Your task to perform on an android device: What's on my calendar tomorrow? Image 0: 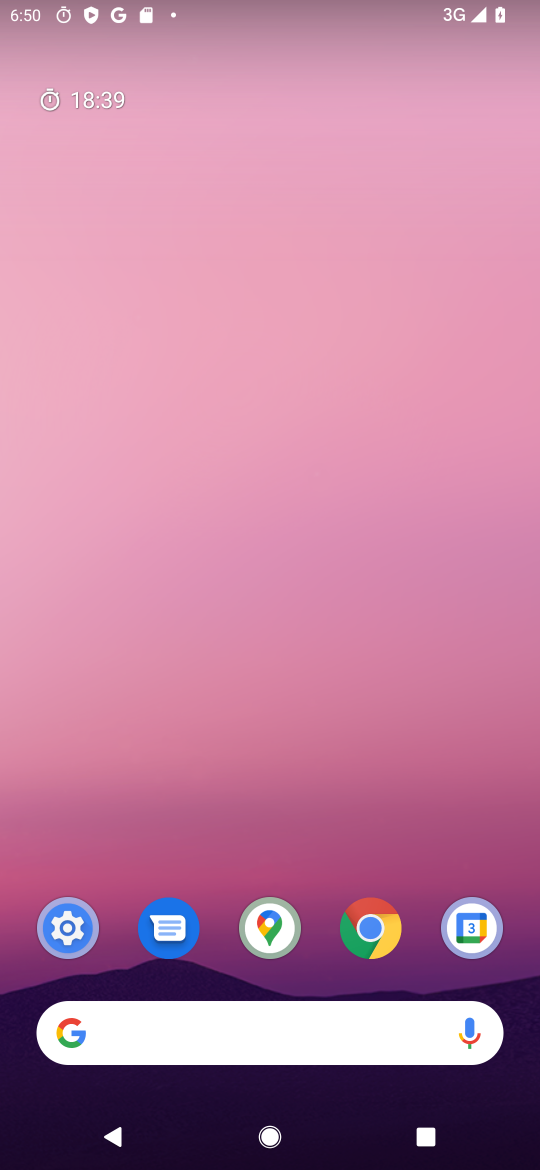
Step 0: press home button
Your task to perform on an android device: What's on my calendar tomorrow? Image 1: 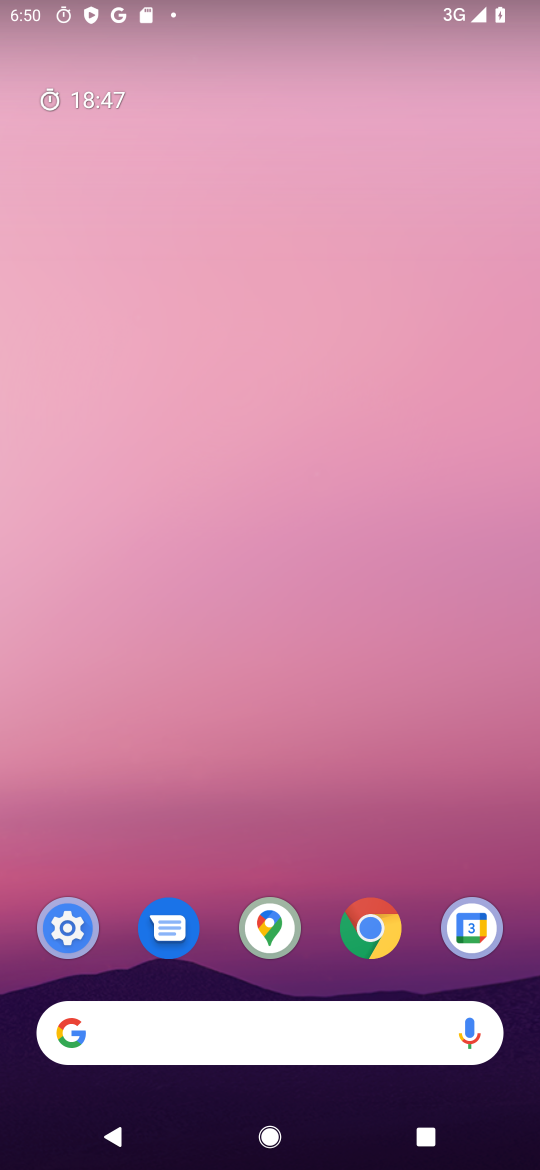
Step 1: drag from (318, 832) to (358, 162)
Your task to perform on an android device: What's on my calendar tomorrow? Image 2: 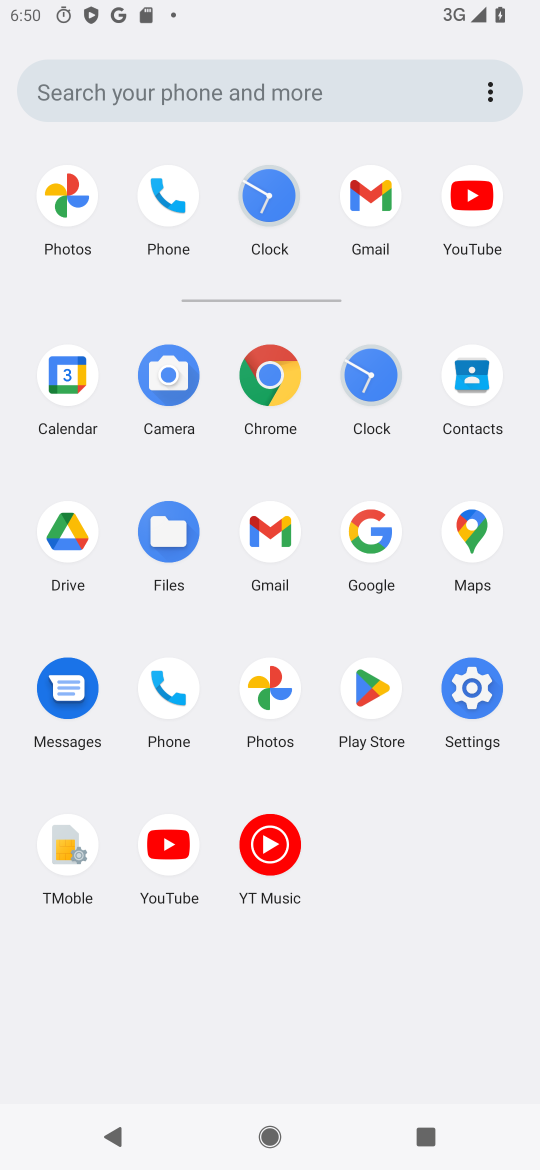
Step 2: click (73, 399)
Your task to perform on an android device: What's on my calendar tomorrow? Image 3: 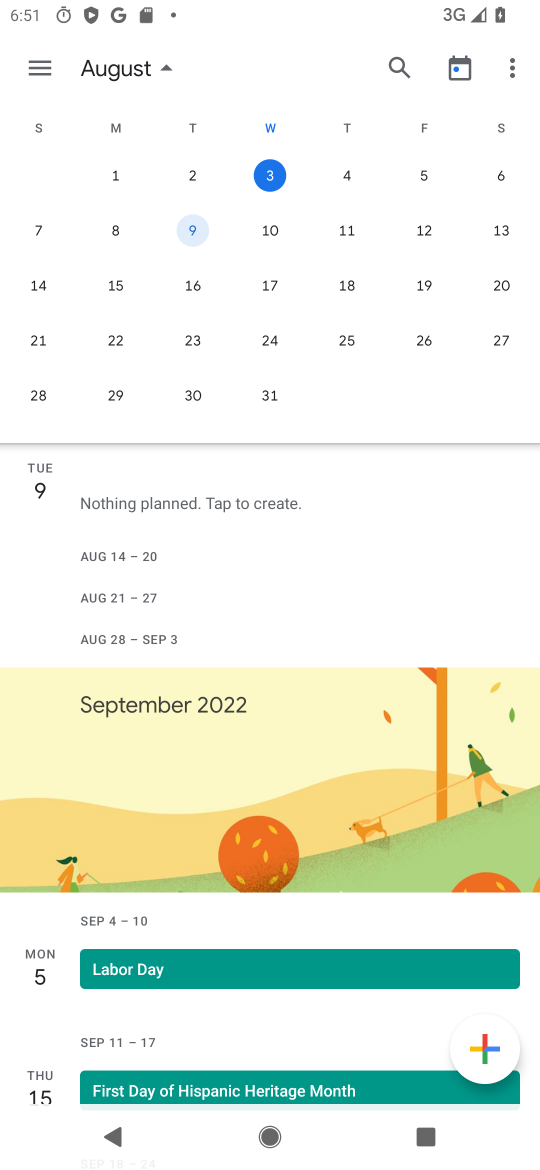
Step 3: task complete